Your task to perform on an android device: toggle priority inbox in the gmail app Image 0: 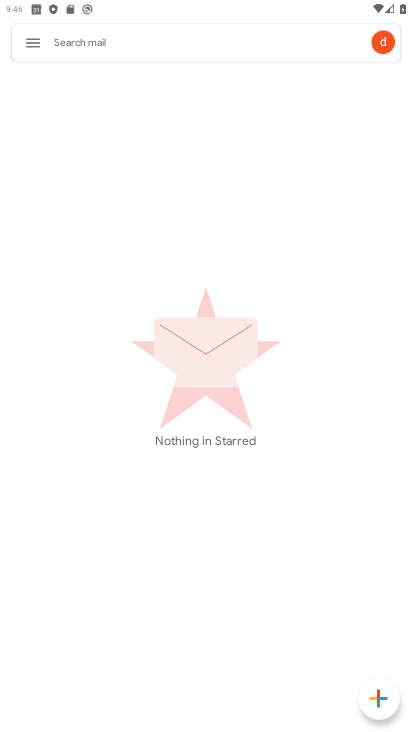
Step 0: press back button
Your task to perform on an android device: toggle priority inbox in the gmail app Image 1: 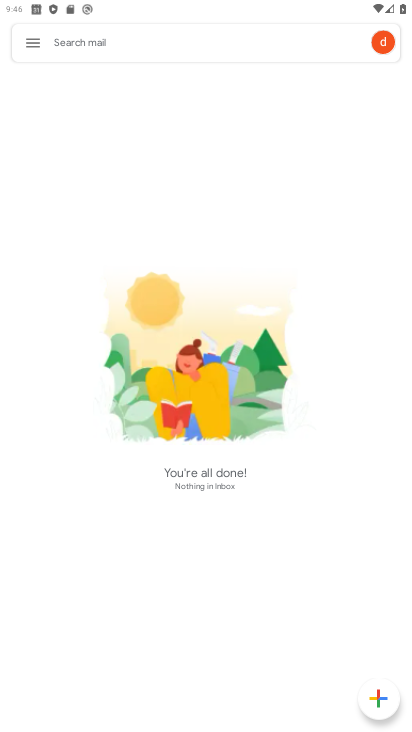
Step 1: click (32, 46)
Your task to perform on an android device: toggle priority inbox in the gmail app Image 2: 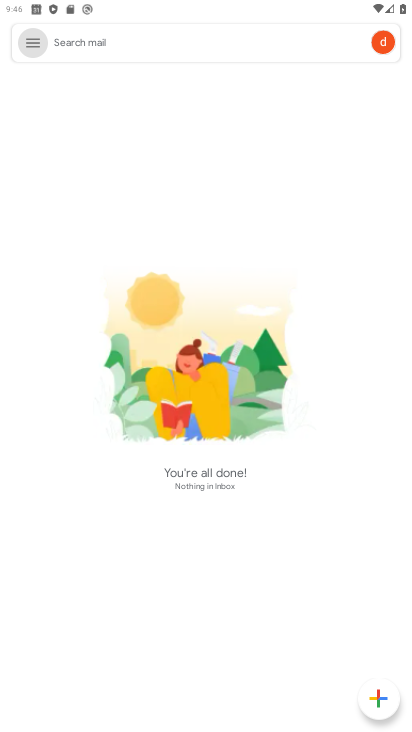
Step 2: click (32, 46)
Your task to perform on an android device: toggle priority inbox in the gmail app Image 3: 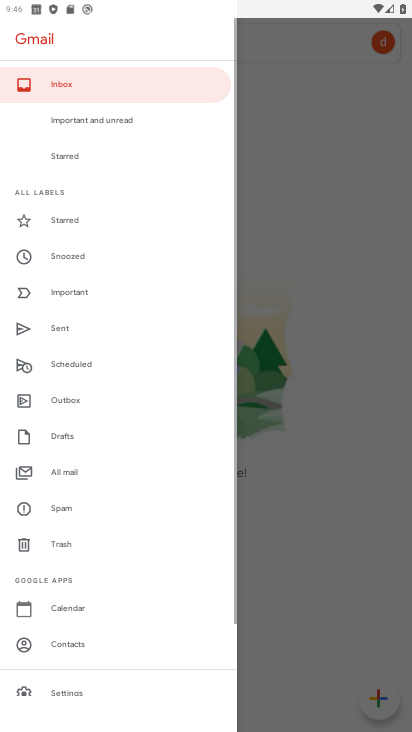
Step 3: click (33, 45)
Your task to perform on an android device: toggle priority inbox in the gmail app Image 4: 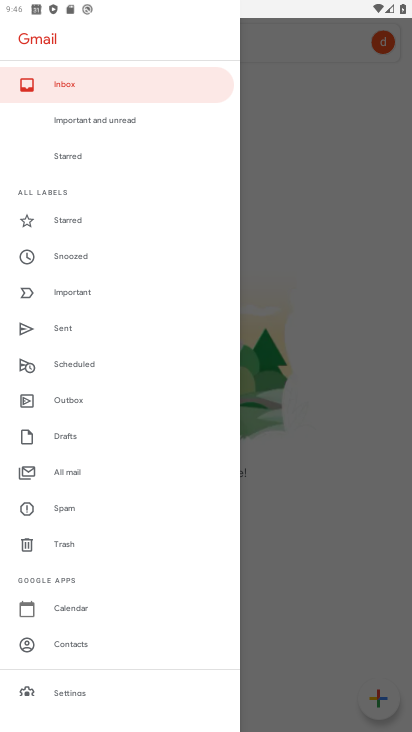
Step 4: drag from (99, 594) to (156, 76)
Your task to perform on an android device: toggle priority inbox in the gmail app Image 5: 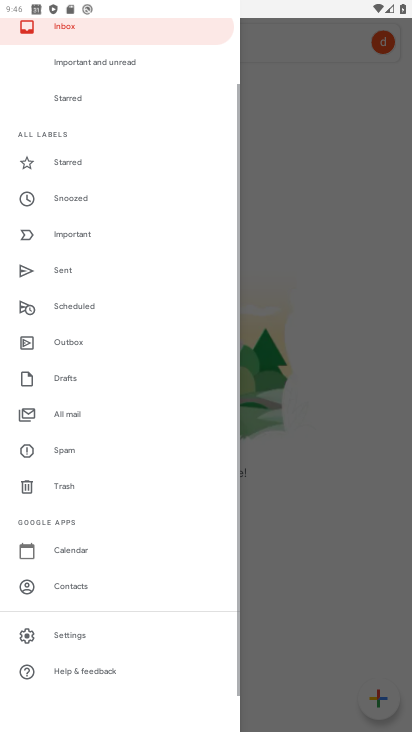
Step 5: click (67, 636)
Your task to perform on an android device: toggle priority inbox in the gmail app Image 6: 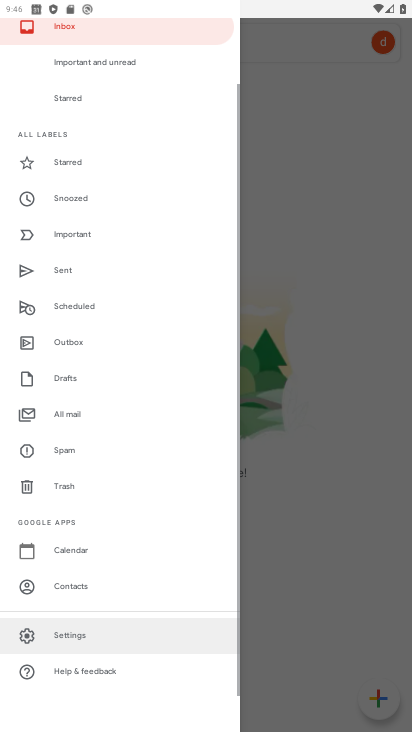
Step 6: click (78, 632)
Your task to perform on an android device: toggle priority inbox in the gmail app Image 7: 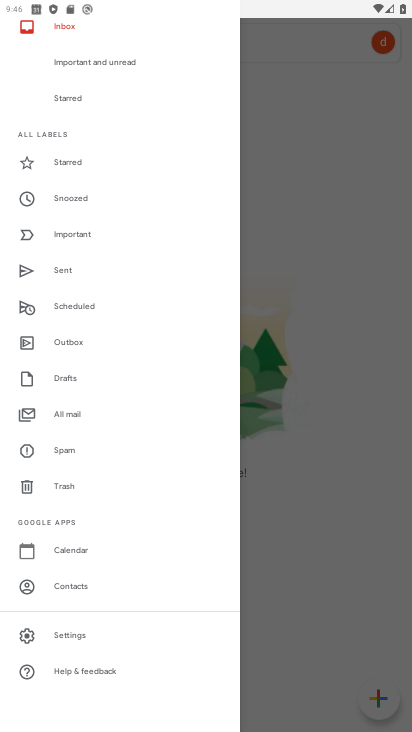
Step 7: click (65, 633)
Your task to perform on an android device: toggle priority inbox in the gmail app Image 8: 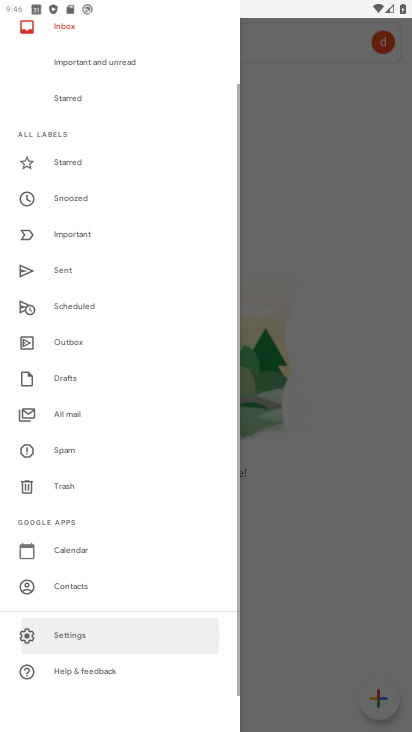
Step 8: click (67, 631)
Your task to perform on an android device: toggle priority inbox in the gmail app Image 9: 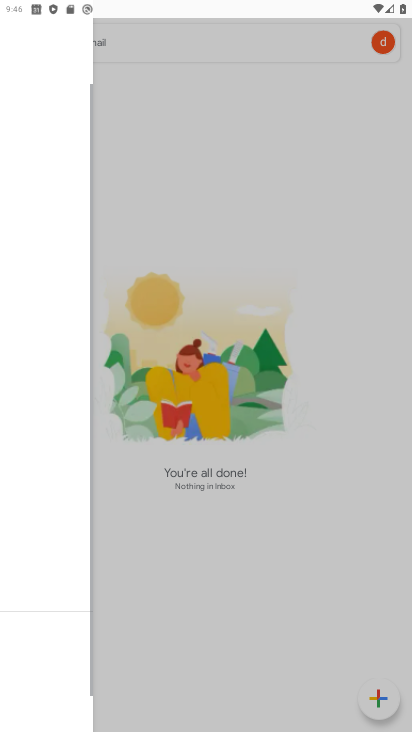
Step 9: click (67, 631)
Your task to perform on an android device: toggle priority inbox in the gmail app Image 10: 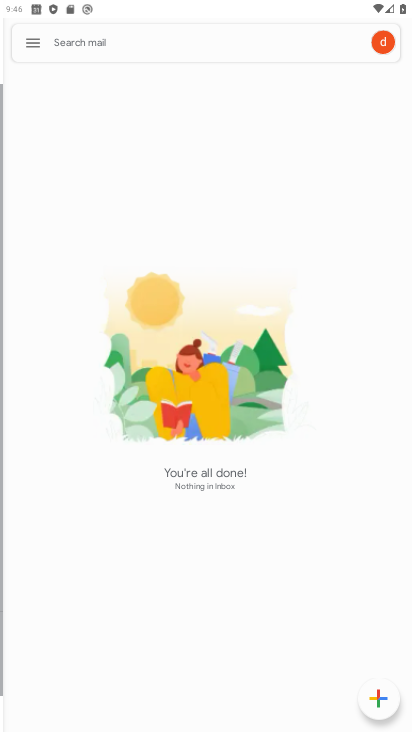
Step 10: click (68, 630)
Your task to perform on an android device: toggle priority inbox in the gmail app Image 11: 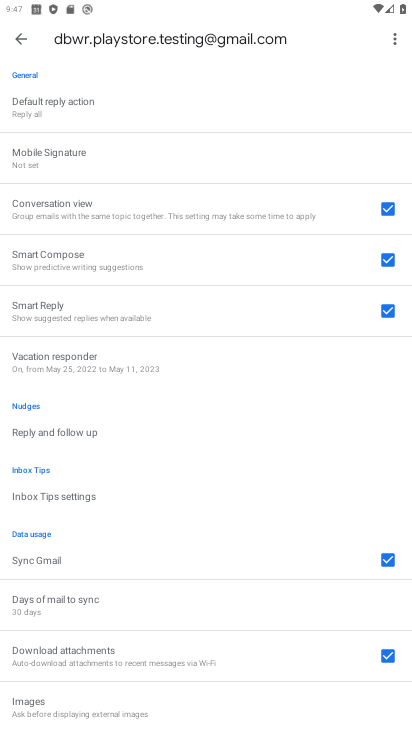
Step 11: drag from (61, 128) to (75, 520)
Your task to perform on an android device: toggle priority inbox in the gmail app Image 12: 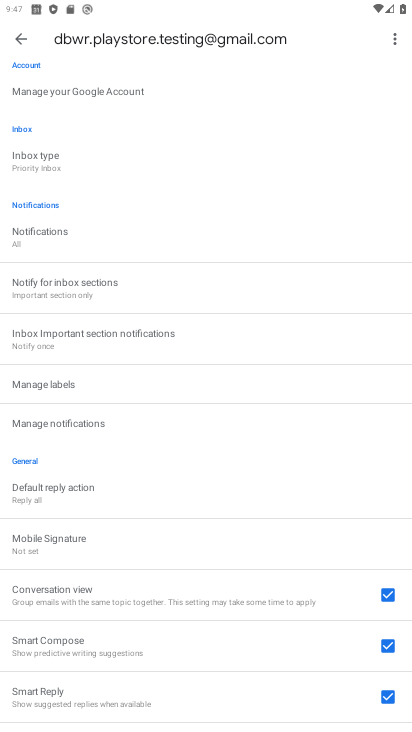
Step 12: click (14, 162)
Your task to perform on an android device: toggle priority inbox in the gmail app Image 13: 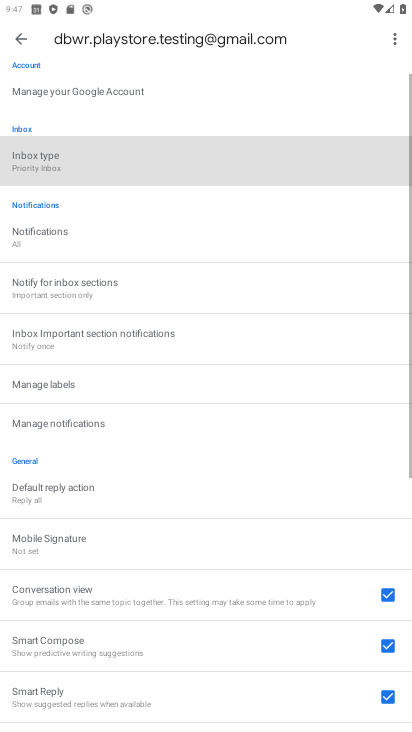
Step 13: click (25, 154)
Your task to perform on an android device: toggle priority inbox in the gmail app Image 14: 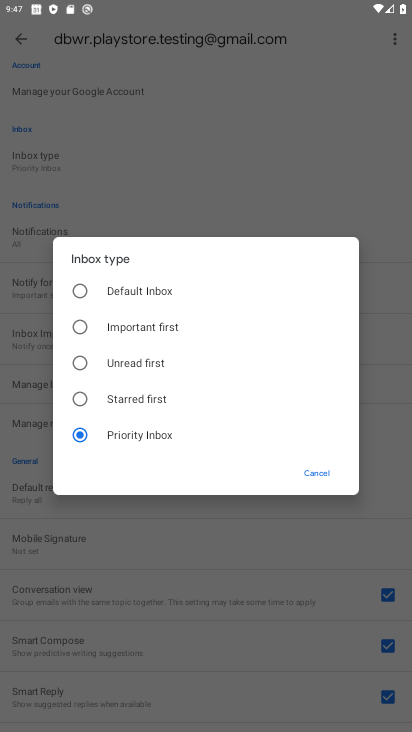
Step 14: click (85, 397)
Your task to perform on an android device: toggle priority inbox in the gmail app Image 15: 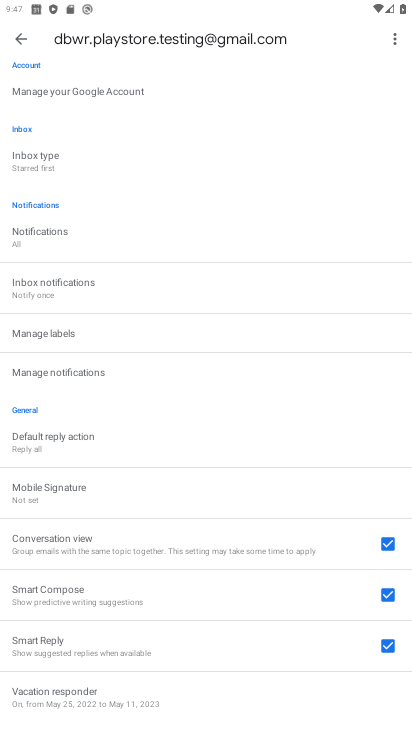
Step 15: task complete